Your task to perform on an android device: Search for "razer nari" on newegg, select the first entry, add it to the cart, then select checkout. Image 0: 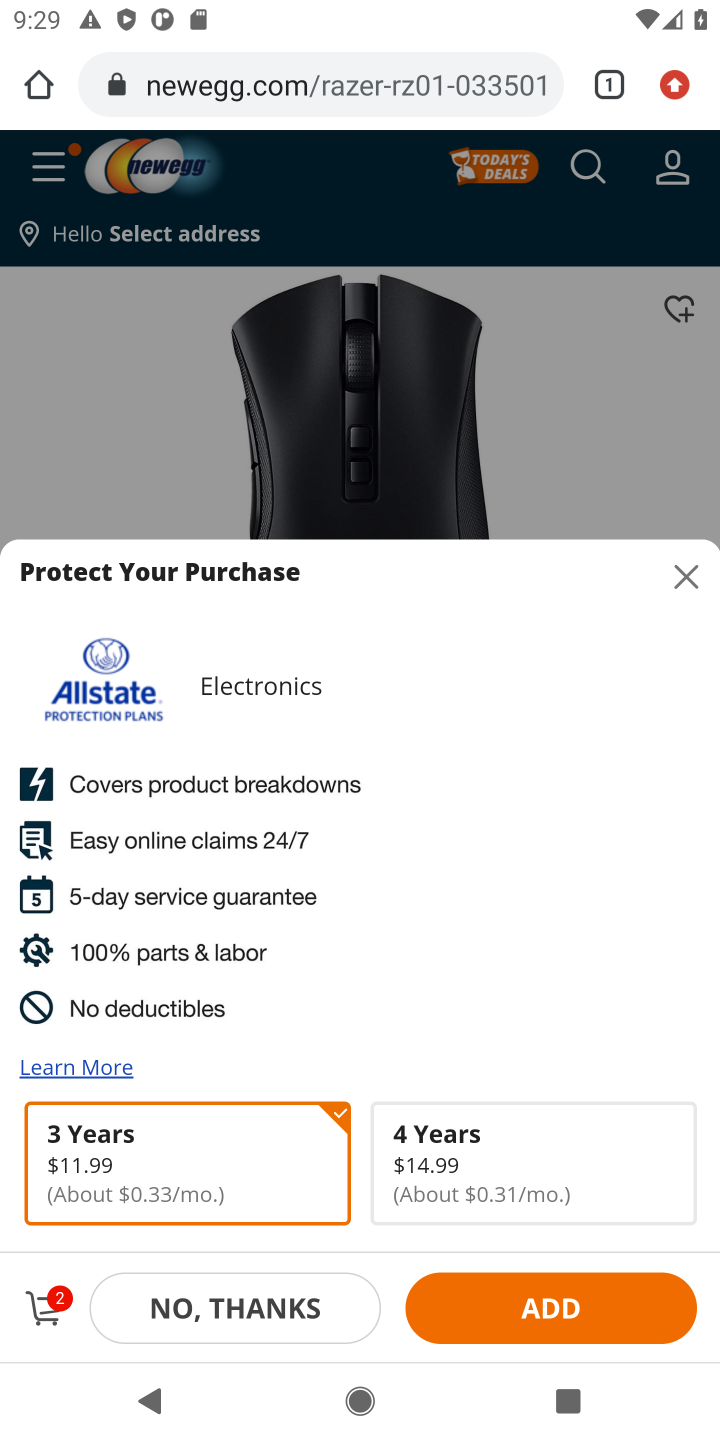
Step 0: press home button
Your task to perform on an android device: Search for "razer nari" on newegg, select the first entry, add it to the cart, then select checkout. Image 1: 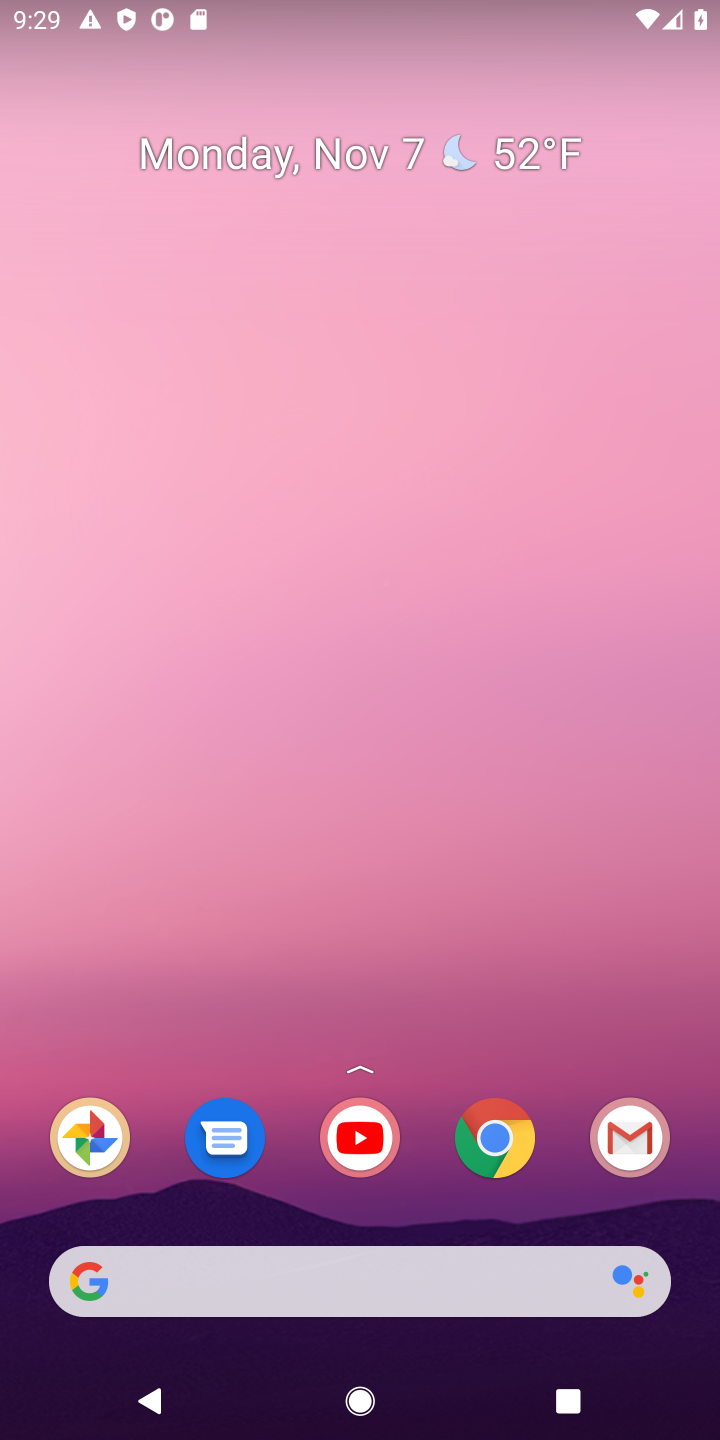
Step 1: drag from (440, 1238) to (411, 308)
Your task to perform on an android device: Search for "razer nari" on newegg, select the first entry, add it to the cart, then select checkout. Image 2: 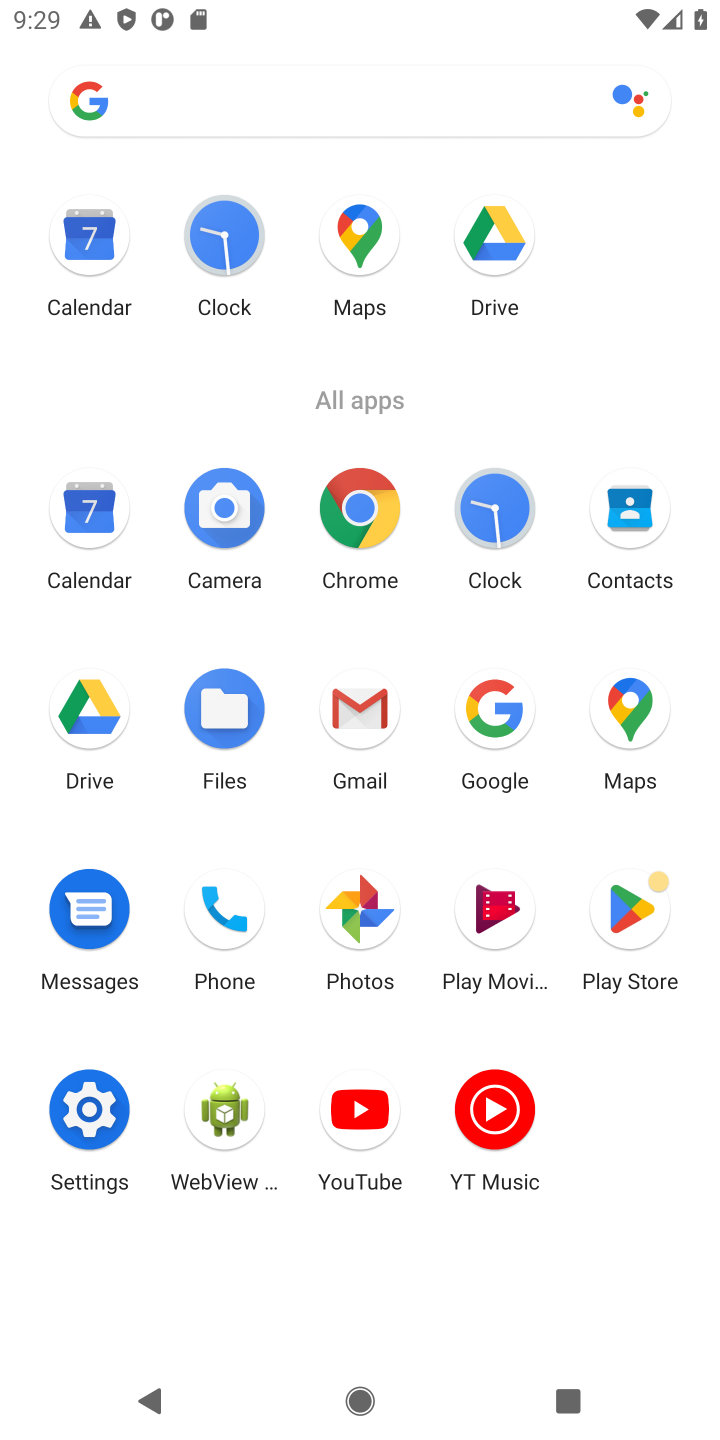
Step 2: click (355, 498)
Your task to perform on an android device: Search for "razer nari" on newegg, select the first entry, add it to the cart, then select checkout. Image 3: 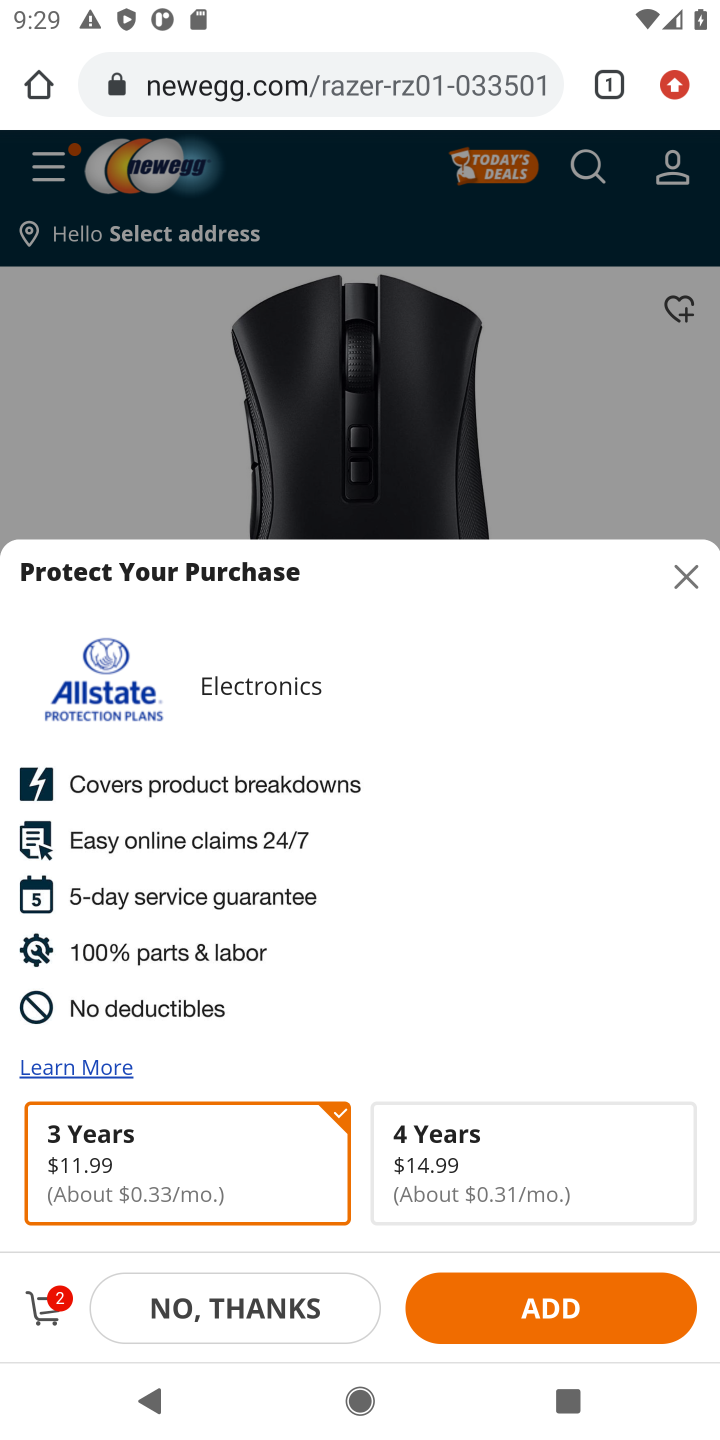
Step 3: click (384, 83)
Your task to perform on an android device: Search for "razer nari" on newegg, select the first entry, add it to the cart, then select checkout. Image 4: 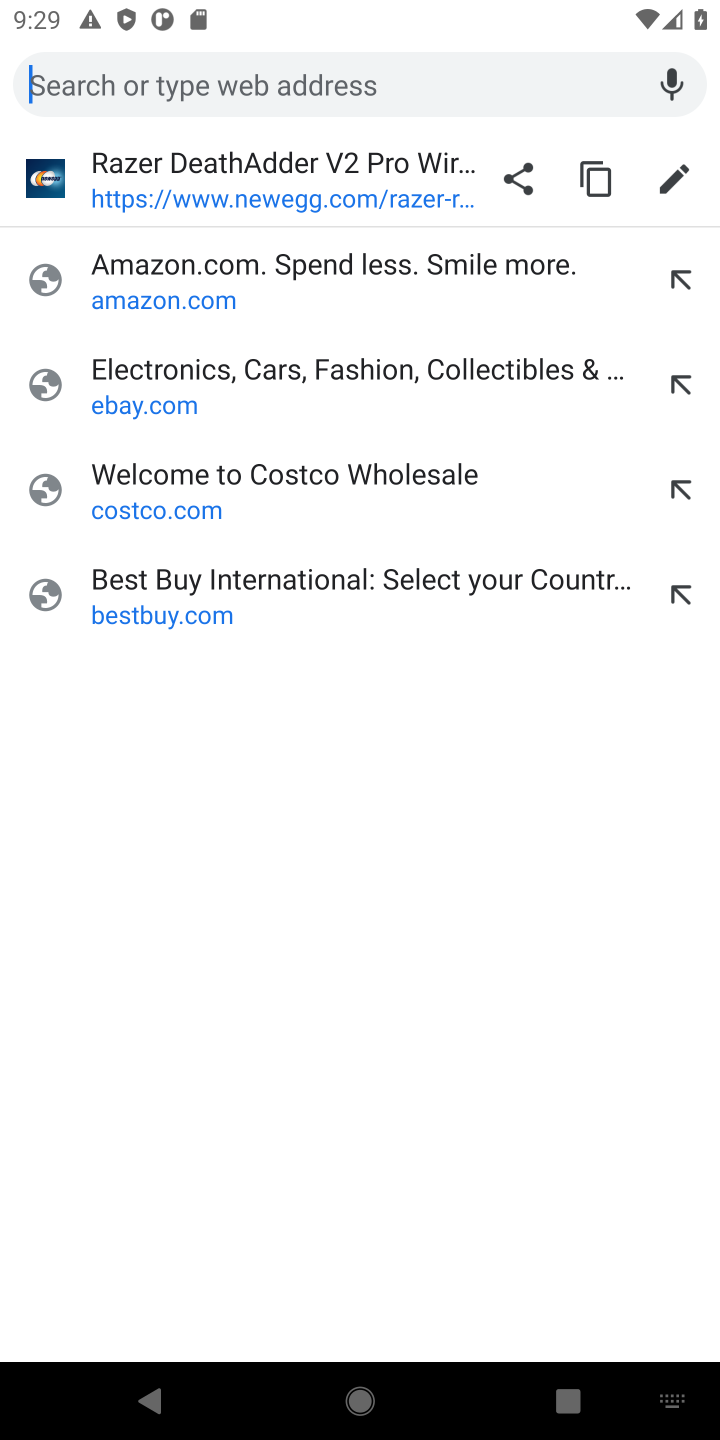
Step 4: type "newegg.com"
Your task to perform on an android device: Search for "razer nari" on newegg, select the first entry, add it to the cart, then select checkout. Image 5: 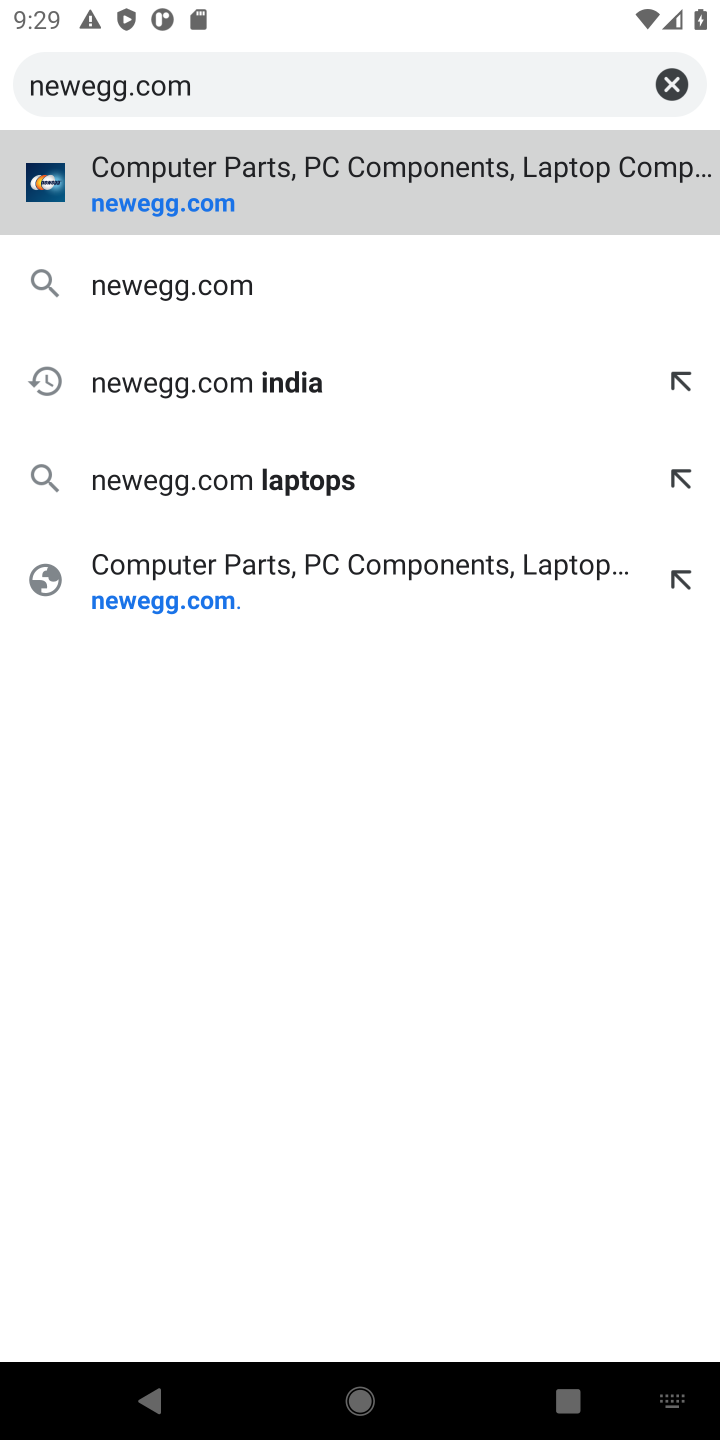
Step 5: press enter
Your task to perform on an android device: Search for "razer nari" on newegg, select the first entry, add it to the cart, then select checkout. Image 6: 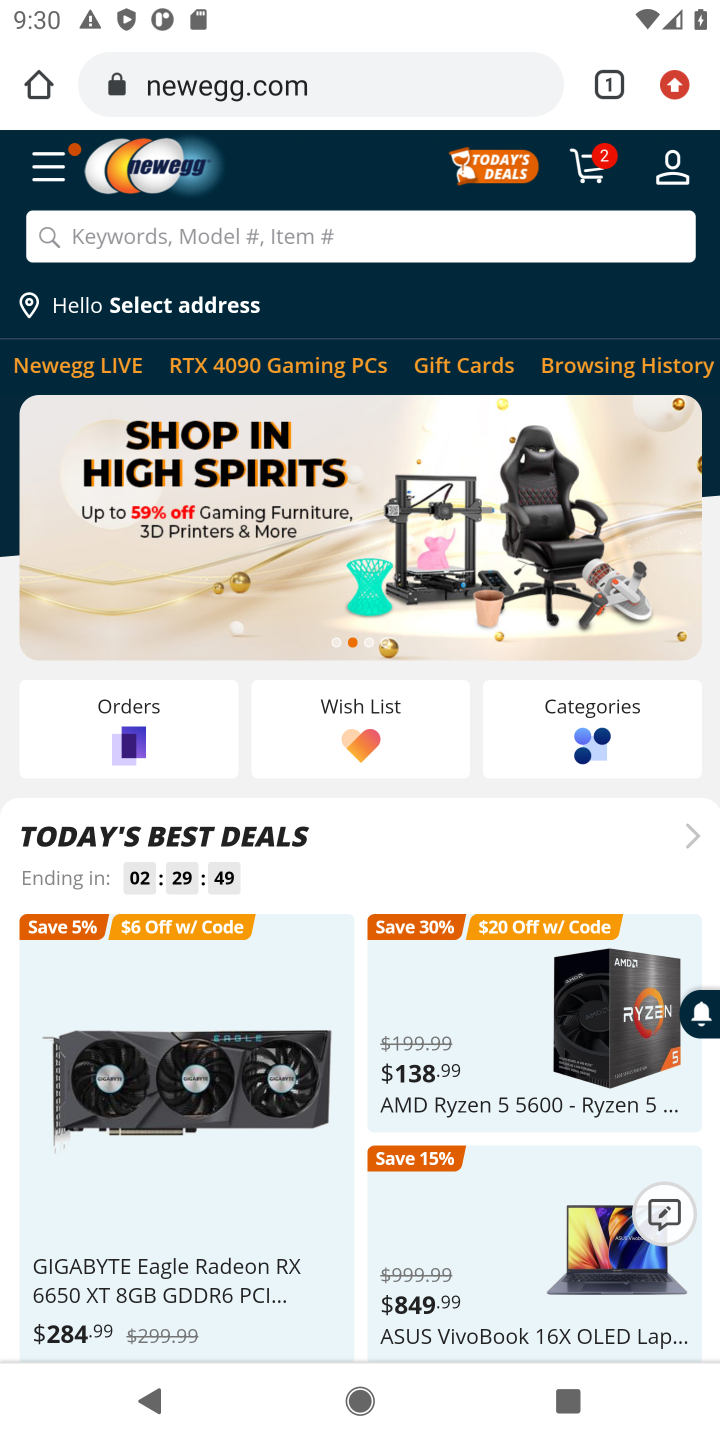
Step 6: click (190, 239)
Your task to perform on an android device: Search for "razer nari" on newegg, select the first entry, add it to the cart, then select checkout. Image 7: 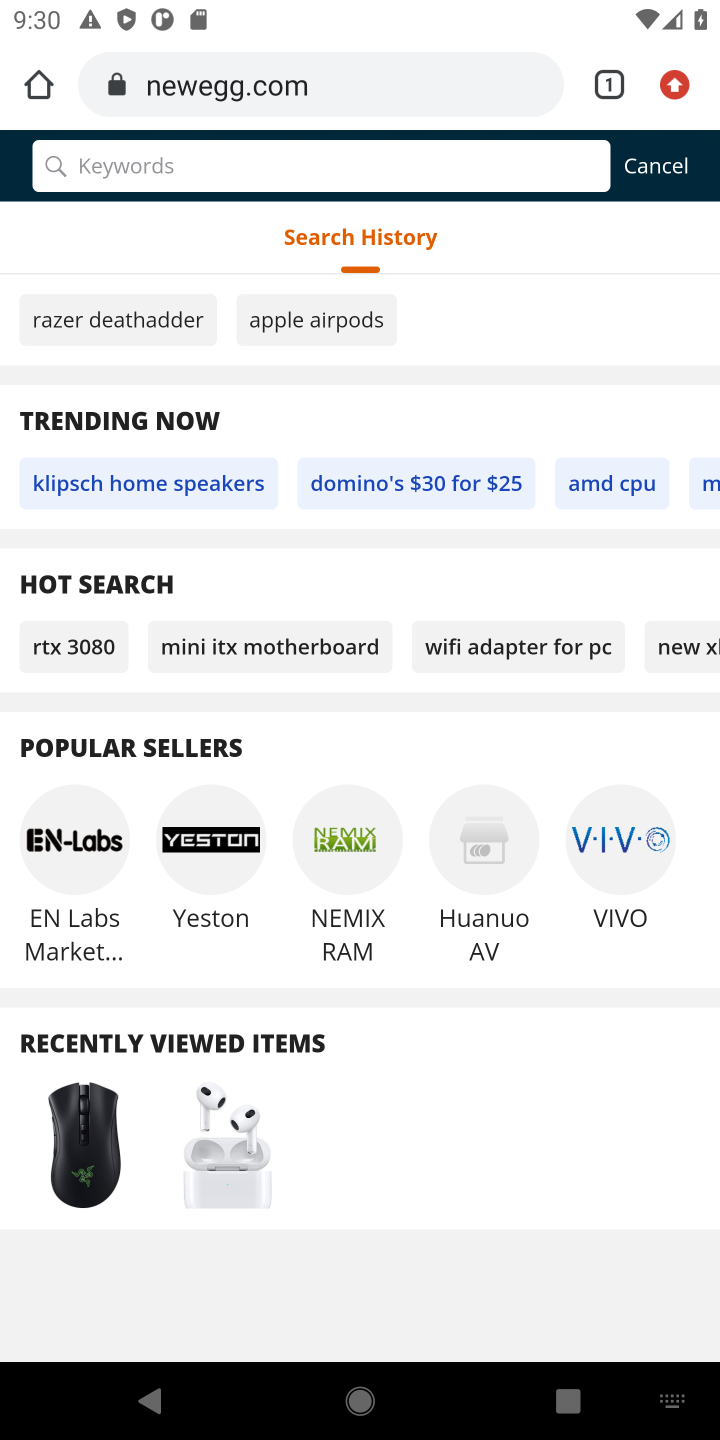
Step 7: type "razer nari"
Your task to perform on an android device: Search for "razer nari" on newegg, select the first entry, add it to the cart, then select checkout. Image 8: 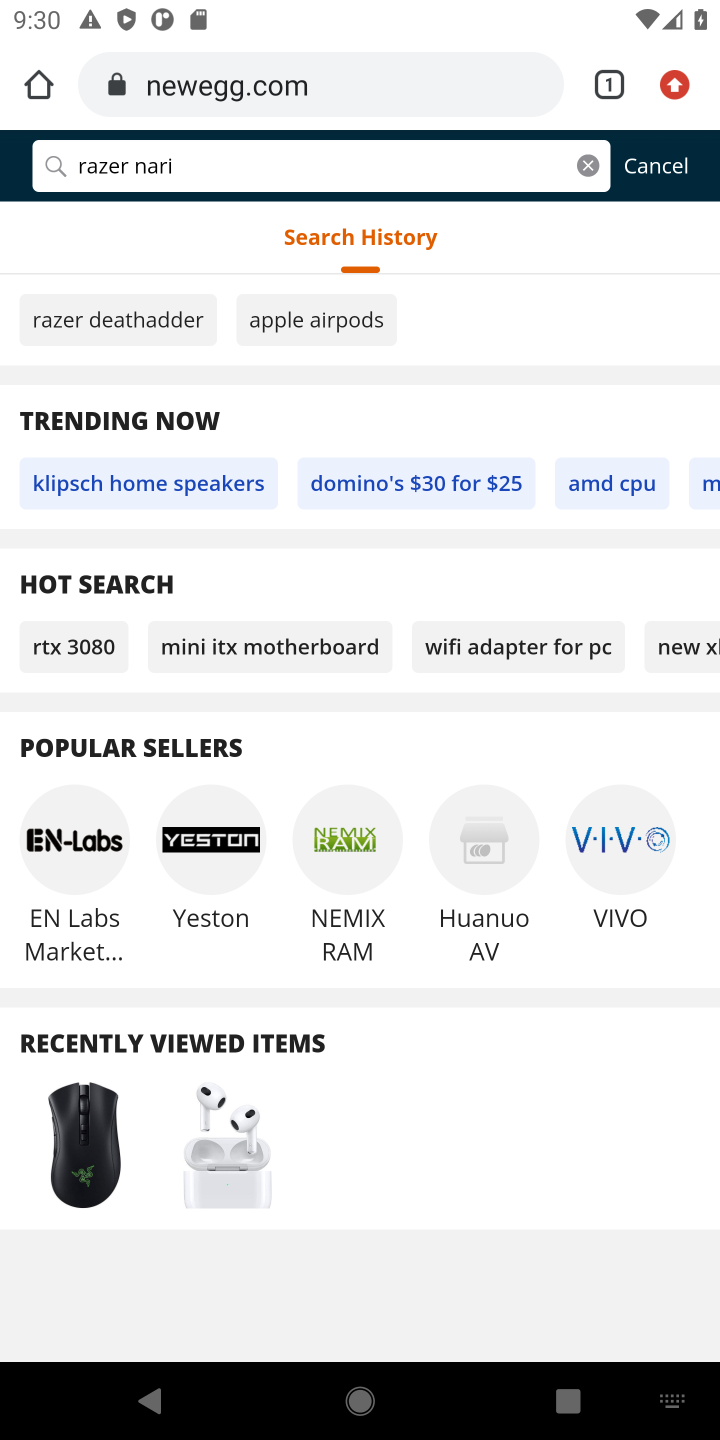
Step 8: press enter
Your task to perform on an android device: Search for "razer nari" on newegg, select the first entry, add it to the cart, then select checkout. Image 9: 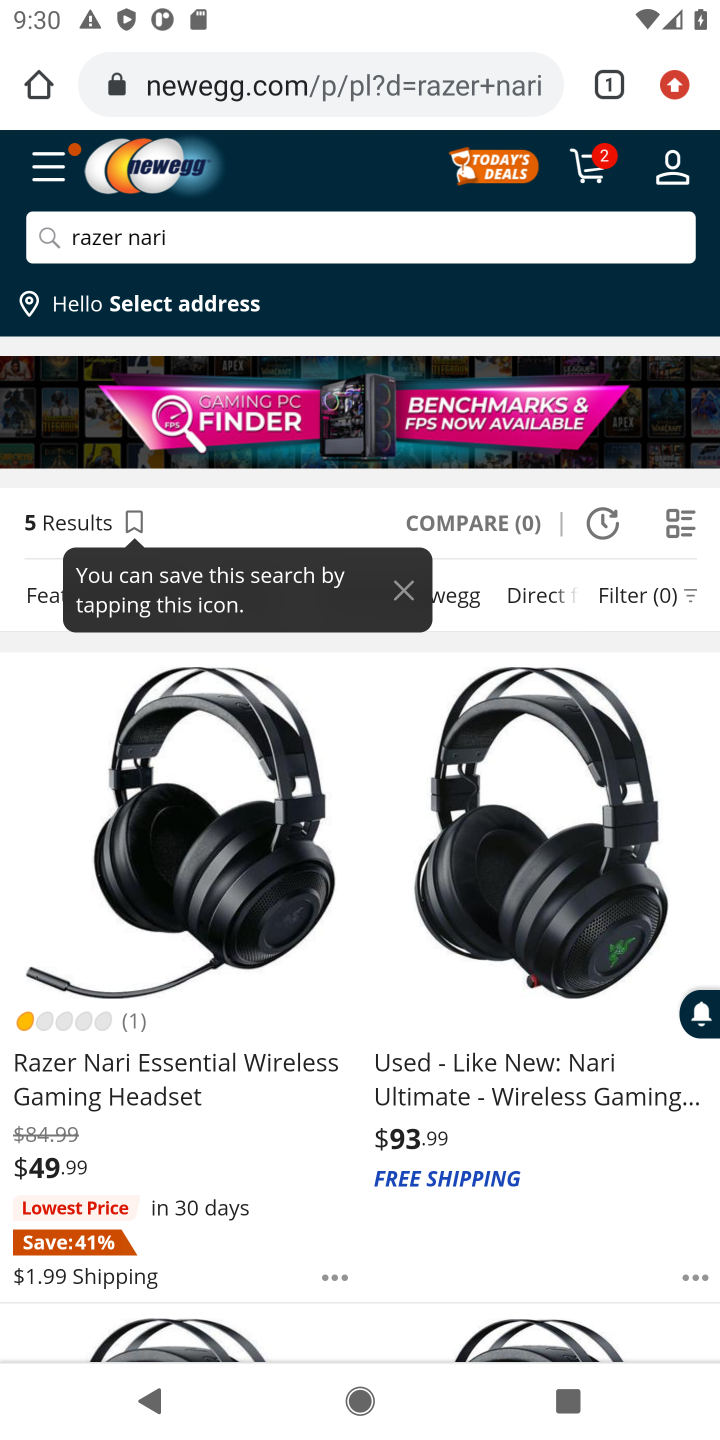
Step 9: click (255, 1067)
Your task to perform on an android device: Search for "razer nari" on newegg, select the first entry, add it to the cart, then select checkout. Image 10: 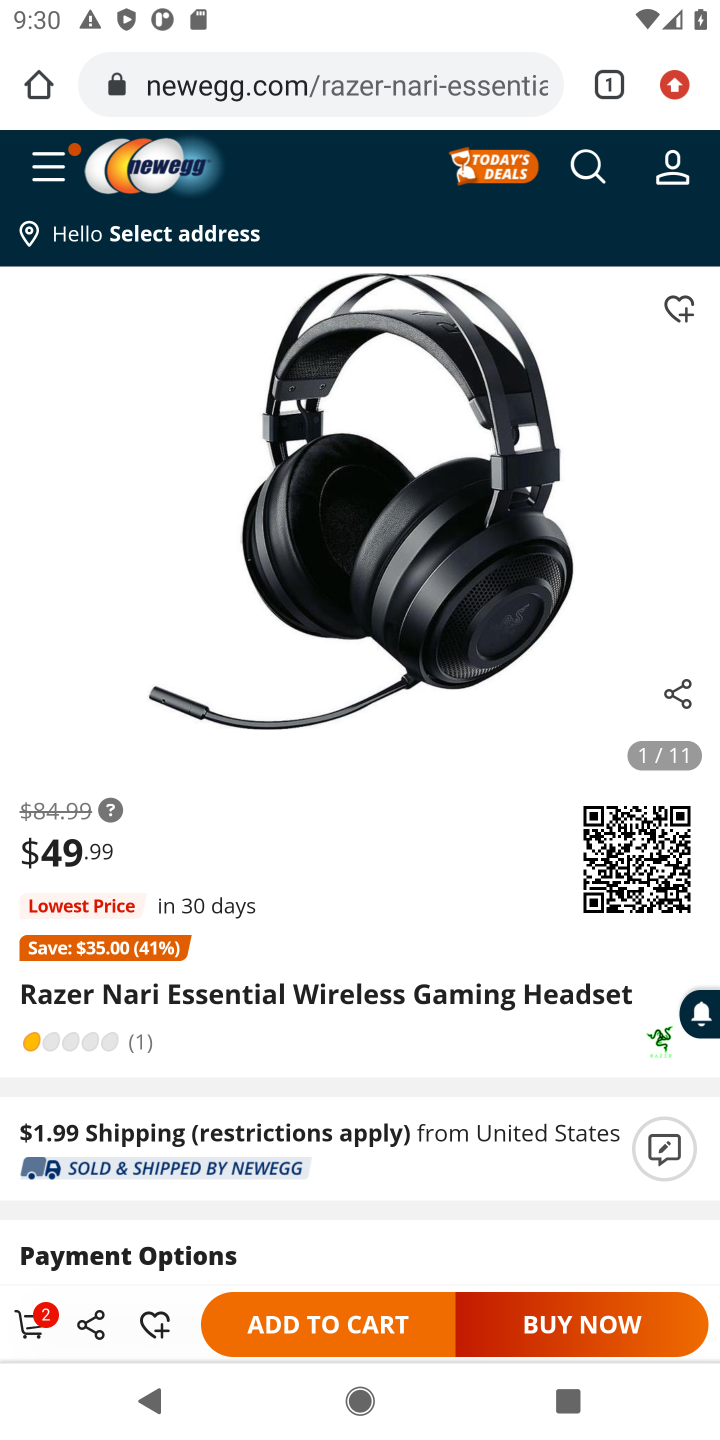
Step 10: click (275, 1313)
Your task to perform on an android device: Search for "razer nari" on newegg, select the first entry, add it to the cart, then select checkout. Image 11: 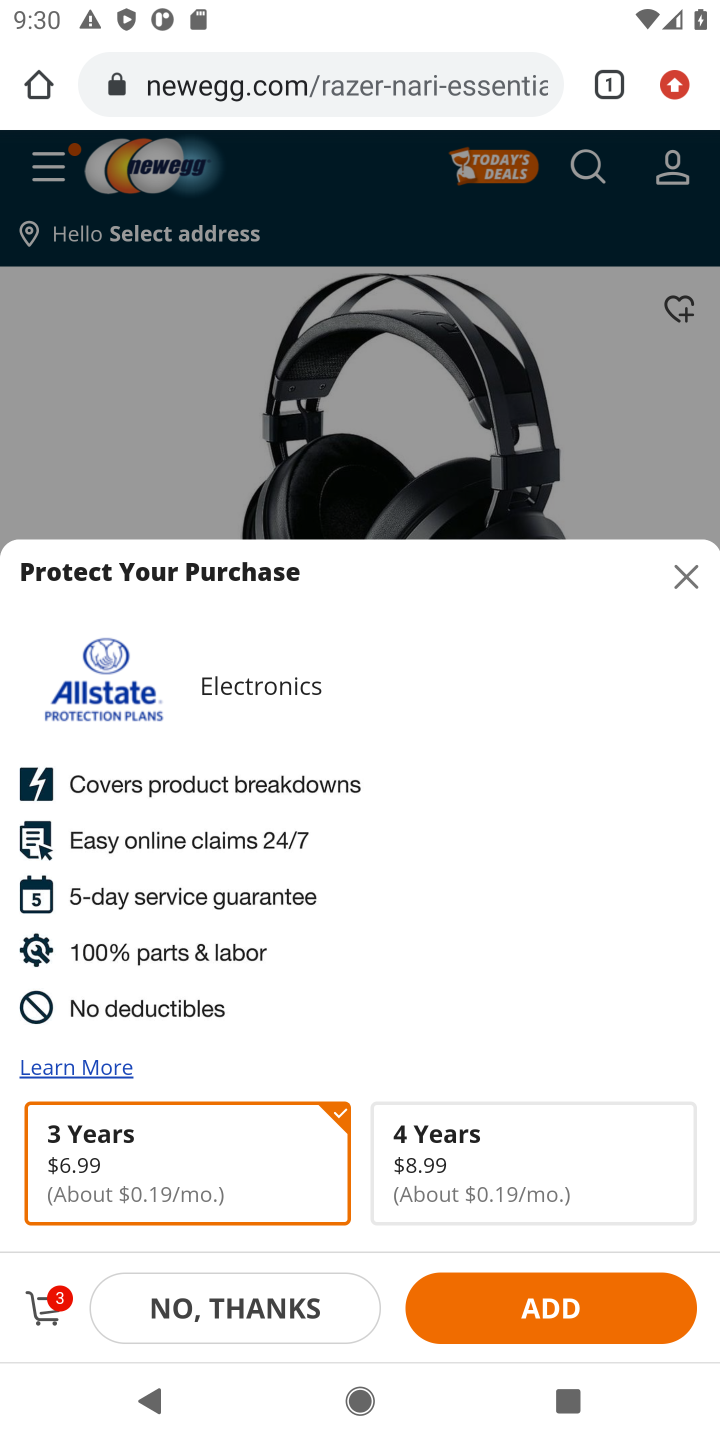
Step 11: click (49, 1300)
Your task to perform on an android device: Search for "razer nari" on newegg, select the first entry, add it to the cart, then select checkout. Image 12: 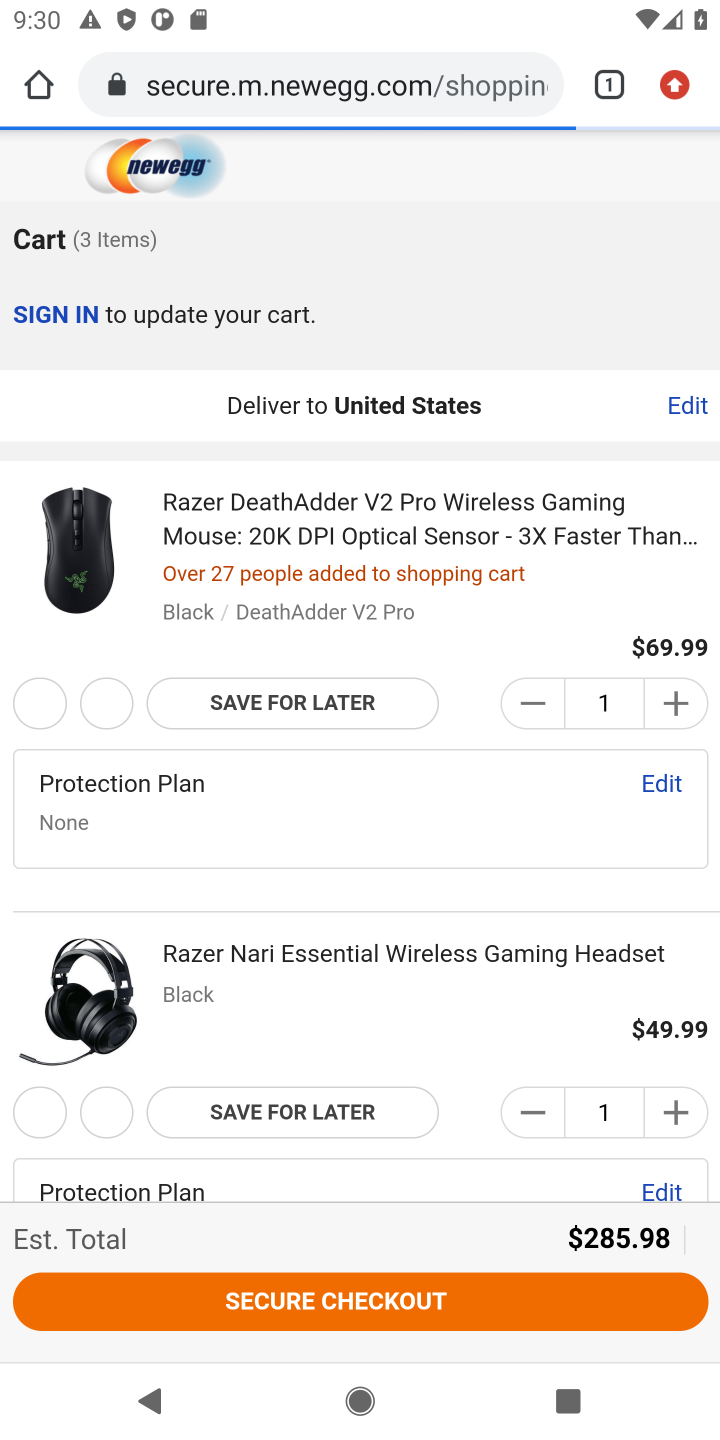
Step 12: click (371, 1300)
Your task to perform on an android device: Search for "razer nari" on newegg, select the first entry, add it to the cart, then select checkout. Image 13: 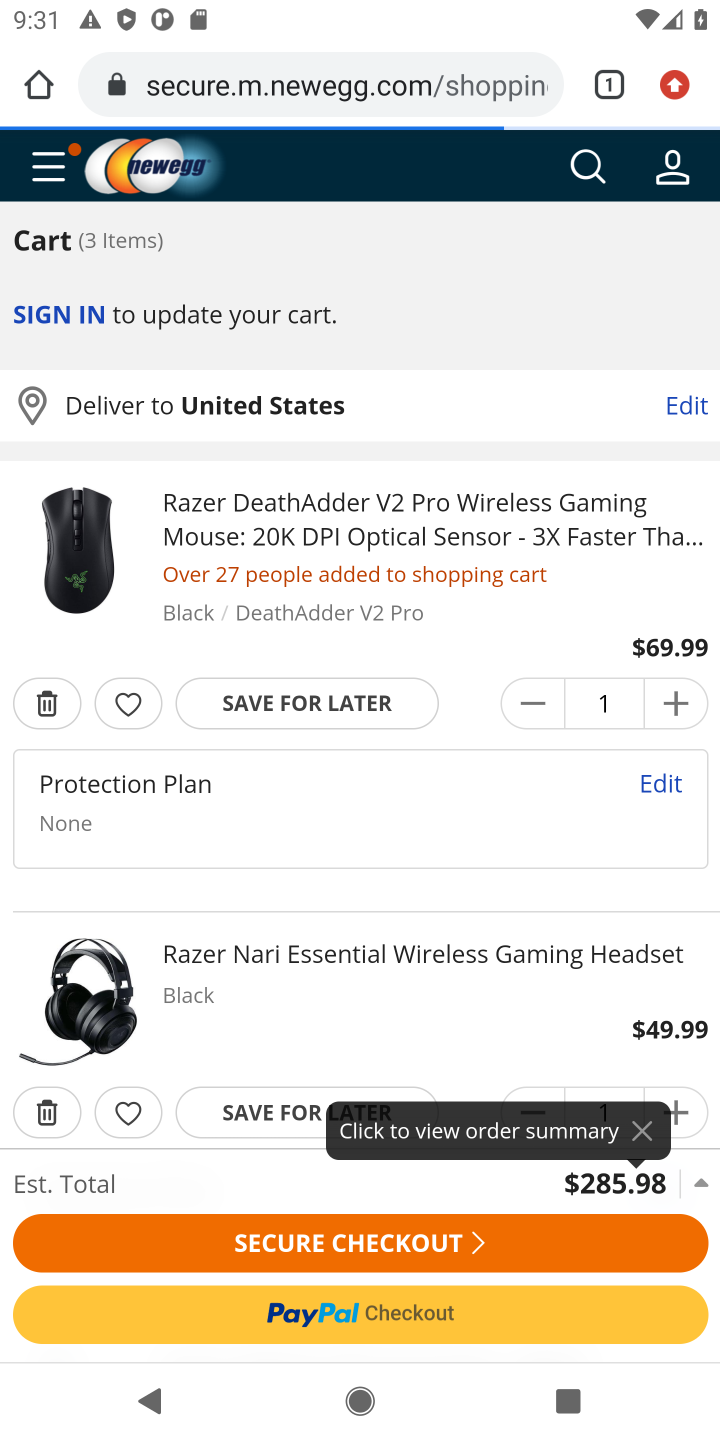
Step 13: click (358, 1255)
Your task to perform on an android device: Search for "razer nari" on newegg, select the first entry, add it to the cart, then select checkout. Image 14: 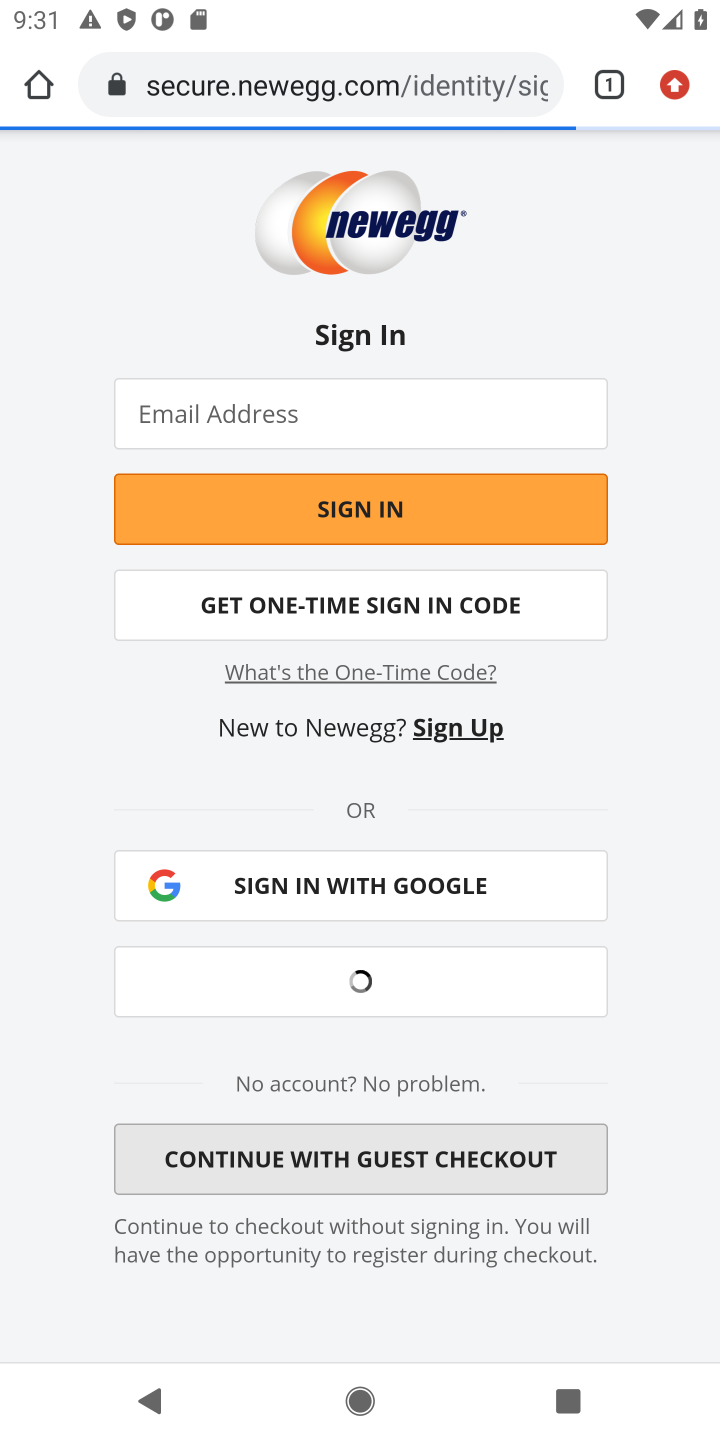
Step 14: task complete